Your task to perform on an android device: turn off notifications settings in the gmail app Image 0: 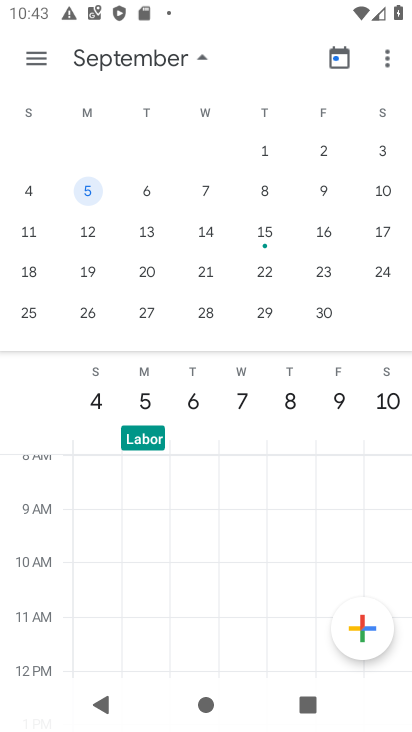
Step 0: press home button
Your task to perform on an android device: turn off notifications settings in the gmail app Image 1: 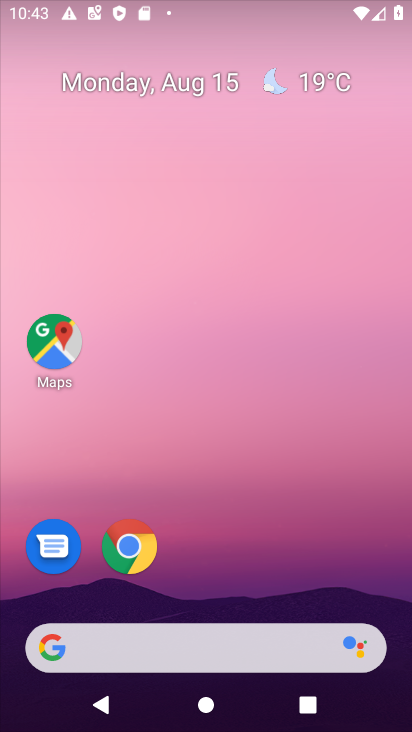
Step 1: drag from (238, 598) to (235, 87)
Your task to perform on an android device: turn off notifications settings in the gmail app Image 2: 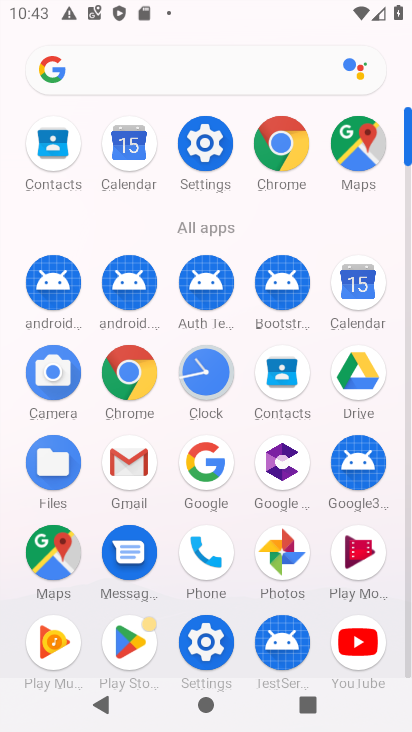
Step 2: click (128, 465)
Your task to perform on an android device: turn off notifications settings in the gmail app Image 3: 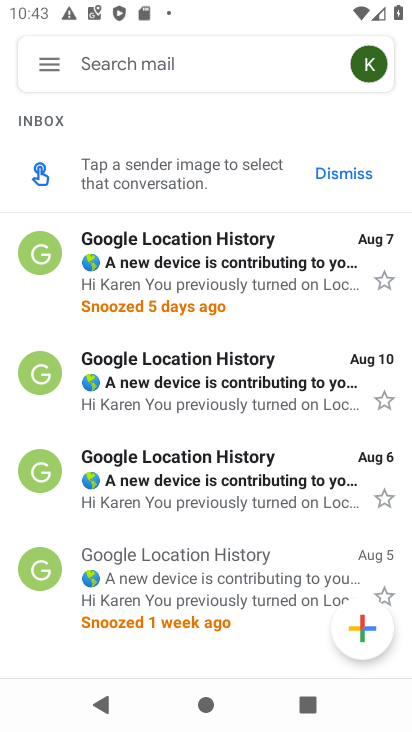
Step 3: click (48, 65)
Your task to perform on an android device: turn off notifications settings in the gmail app Image 4: 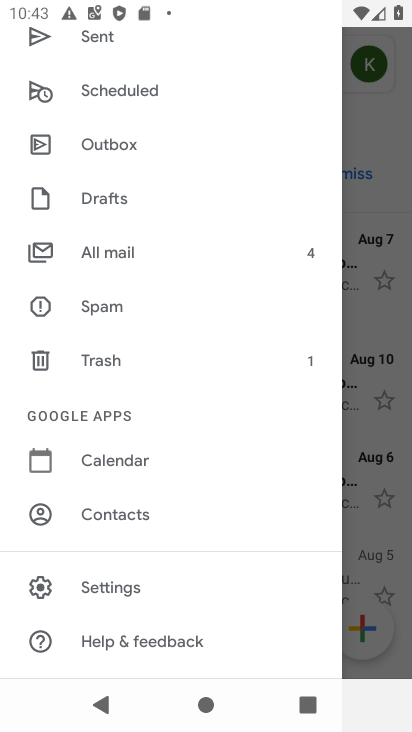
Step 4: click (121, 588)
Your task to perform on an android device: turn off notifications settings in the gmail app Image 5: 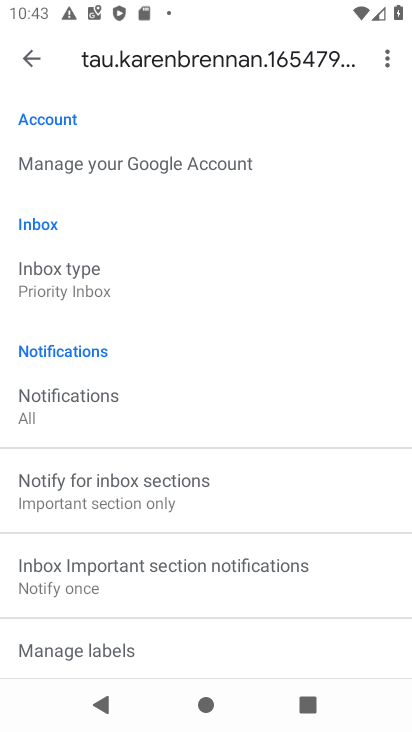
Step 5: click (77, 415)
Your task to perform on an android device: turn off notifications settings in the gmail app Image 6: 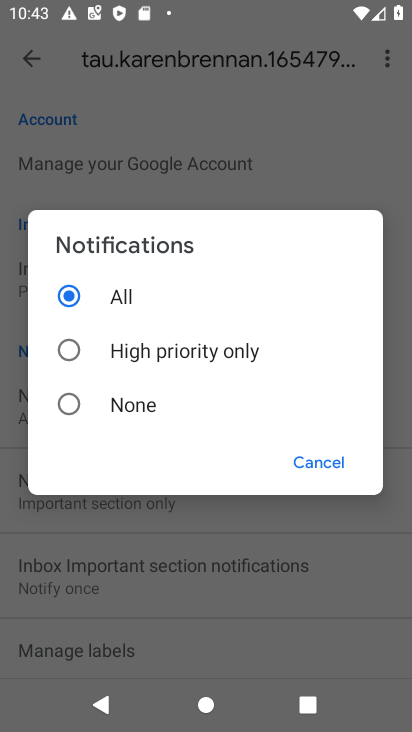
Step 6: click (69, 406)
Your task to perform on an android device: turn off notifications settings in the gmail app Image 7: 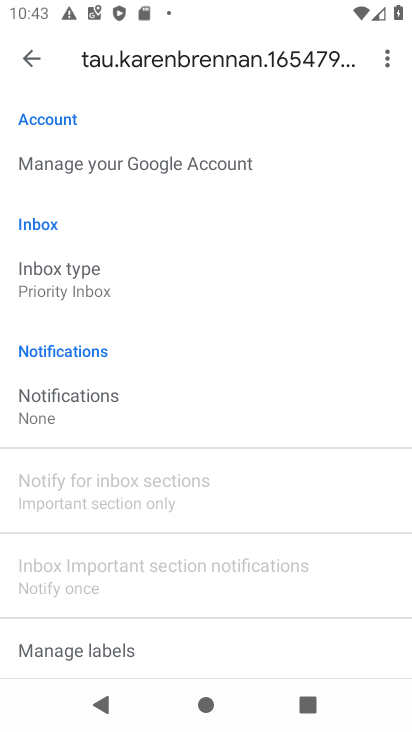
Step 7: task complete